Your task to perform on an android device: uninstall "Booking.com: Hotels and more" Image 0: 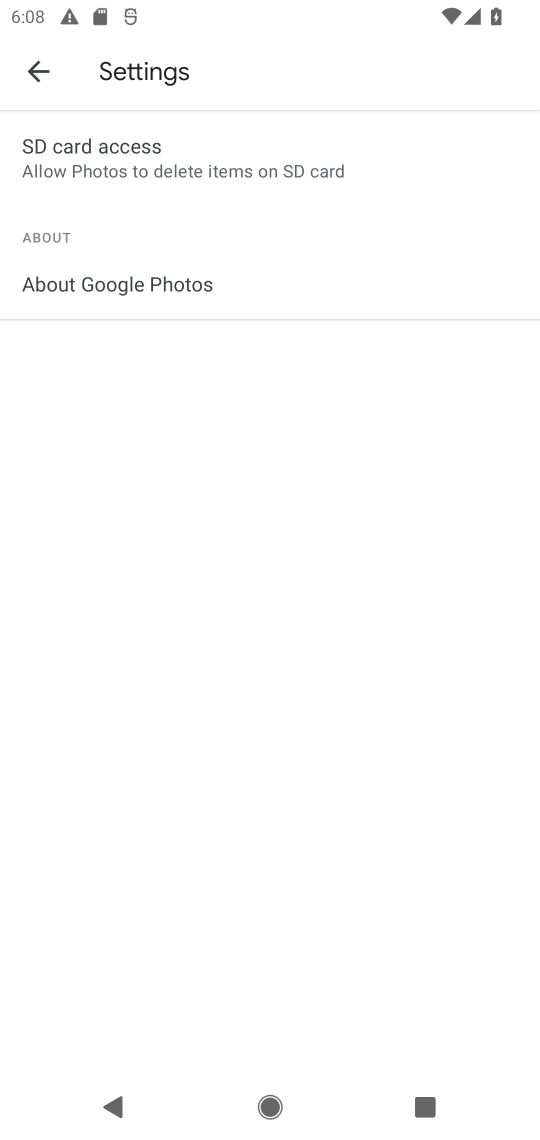
Step 0: press home button
Your task to perform on an android device: uninstall "Booking.com: Hotels and more" Image 1: 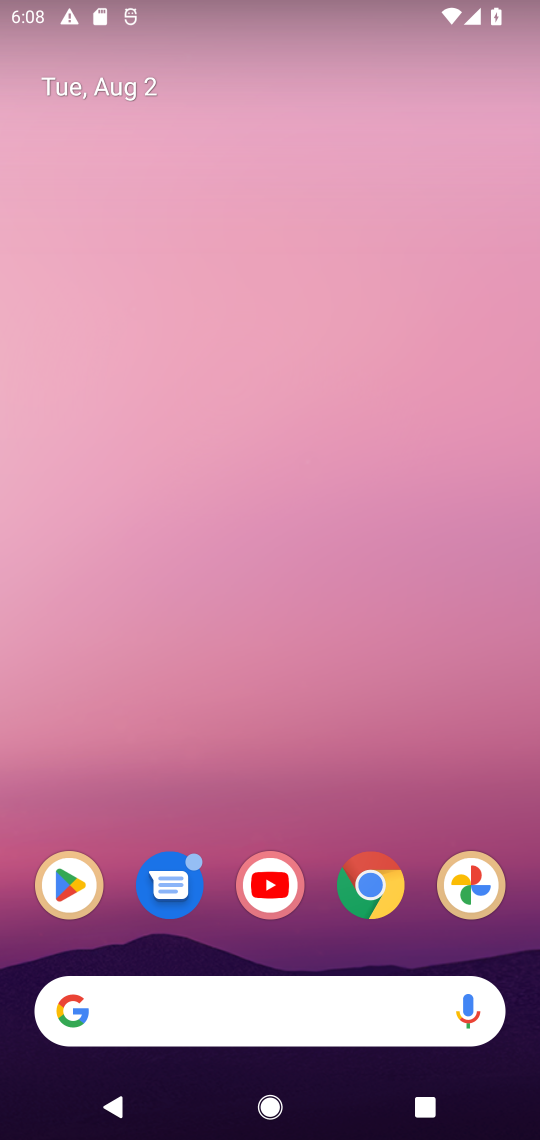
Step 1: drag from (340, 646) to (324, 53)
Your task to perform on an android device: uninstall "Booking.com: Hotels and more" Image 2: 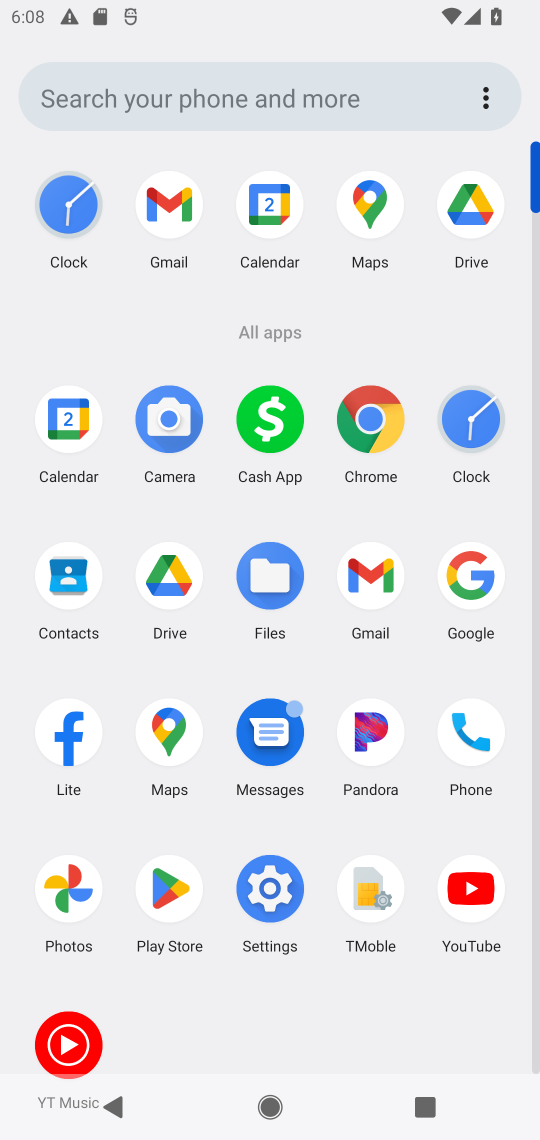
Step 2: click (167, 898)
Your task to perform on an android device: uninstall "Booking.com: Hotels and more" Image 3: 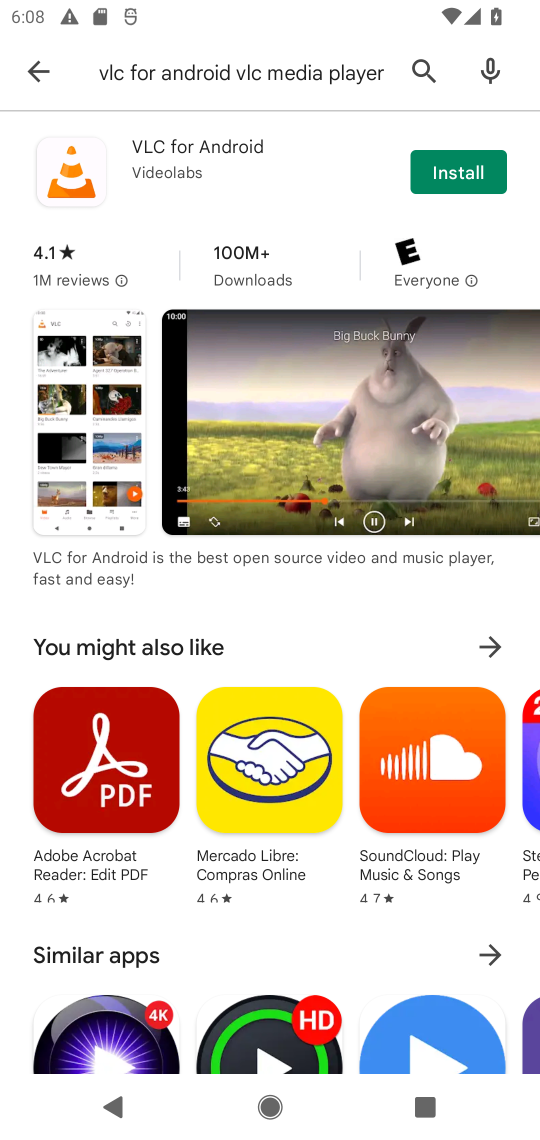
Step 3: click (423, 70)
Your task to perform on an android device: uninstall "Booking.com: Hotels and more" Image 4: 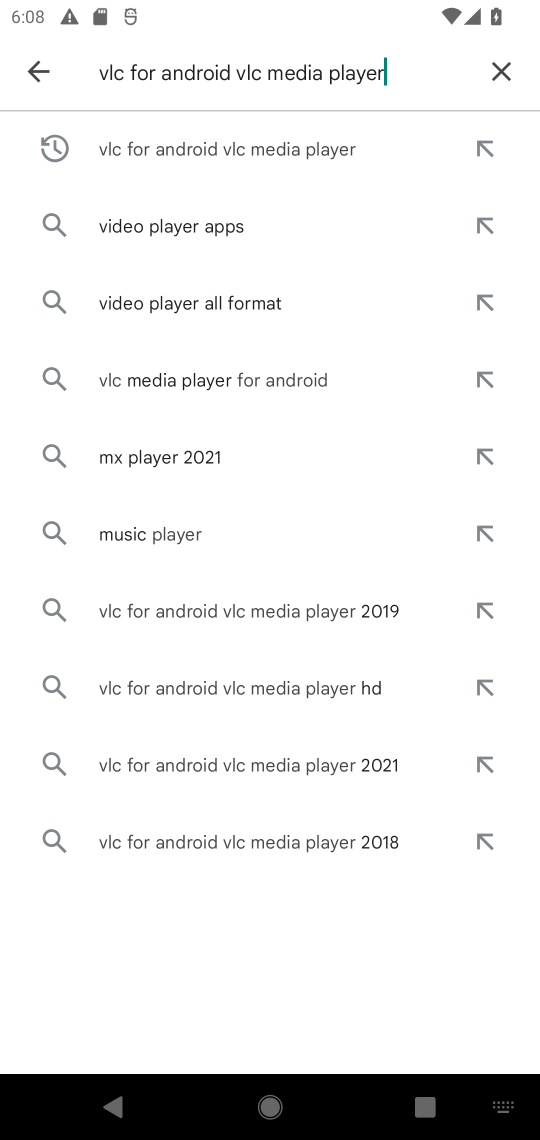
Step 4: click (508, 67)
Your task to perform on an android device: uninstall "Booking.com: Hotels and more" Image 5: 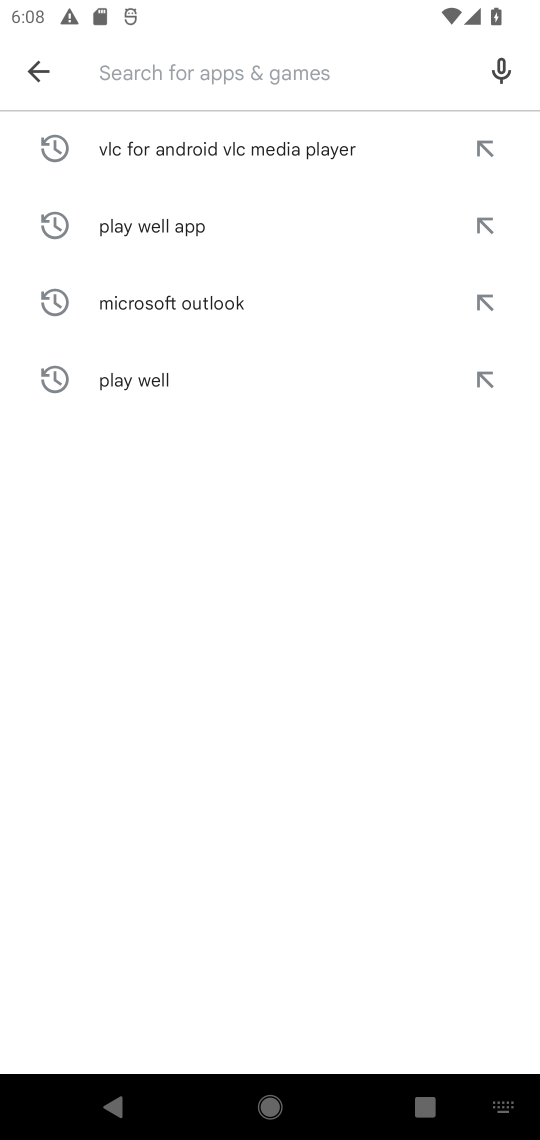
Step 5: click (357, 72)
Your task to perform on an android device: uninstall "Booking.com: Hotels and more" Image 6: 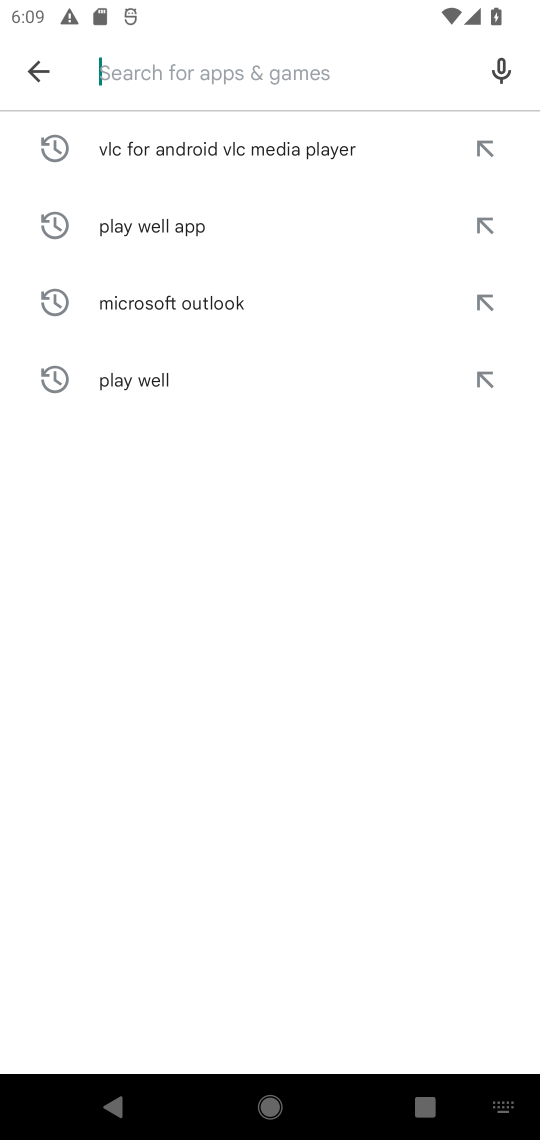
Step 6: type "Booking.com: Hotels and more"
Your task to perform on an android device: uninstall "Booking.com: Hotels and more" Image 7: 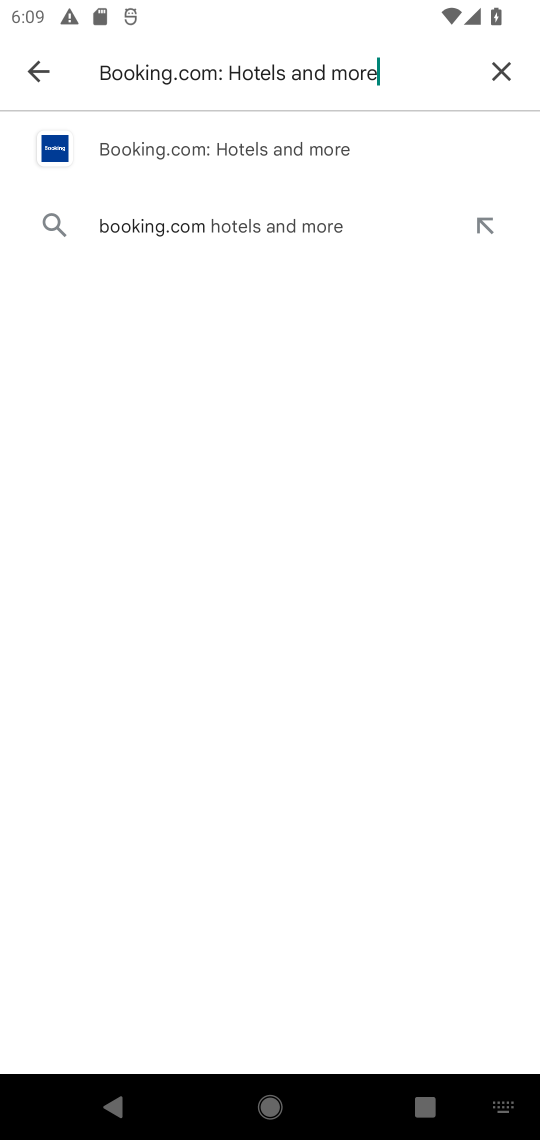
Step 7: click (272, 144)
Your task to perform on an android device: uninstall "Booking.com: Hotels and more" Image 8: 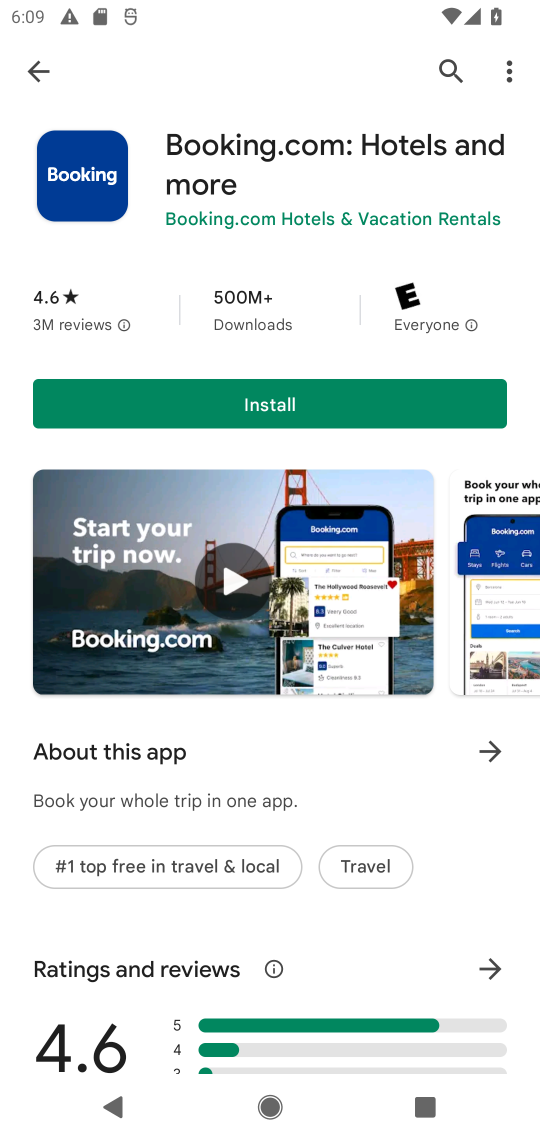
Step 8: task complete